Your task to perform on an android device: Open internet settings Image 0: 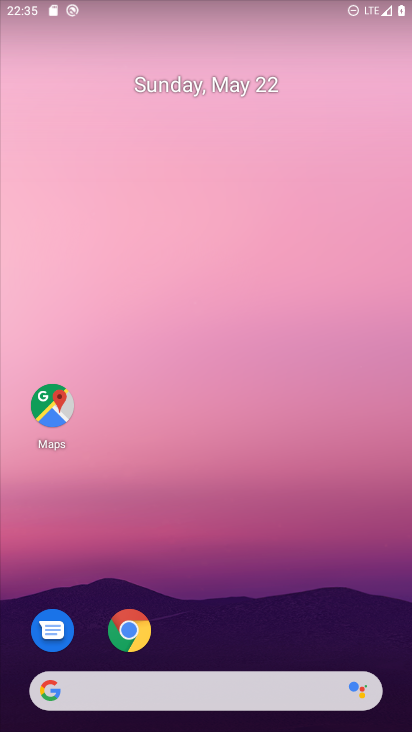
Step 0: drag from (130, 695) to (278, 97)
Your task to perform on an android device: Open internet settings Image 1: 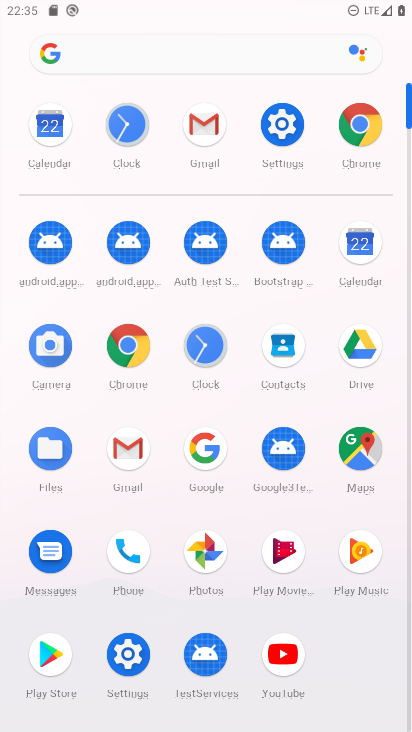
Step 1: click (280, 125)
Your task to perform on an android device: Open internet settings Image 2: 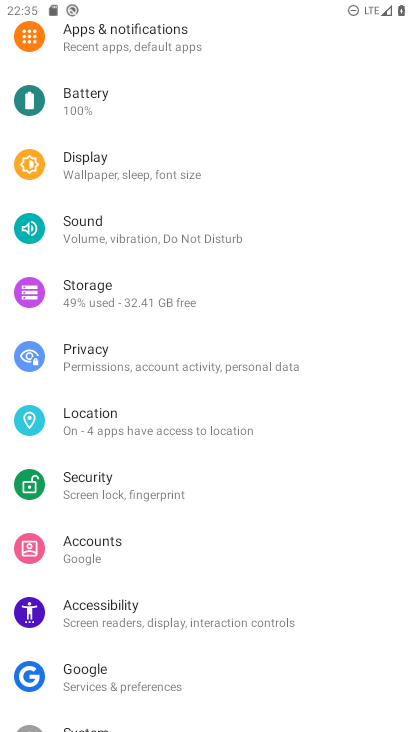
Step 2: drag from (197, 76) to (141, 569)
Your task to perform on an android device: Open internet settings Image 3: 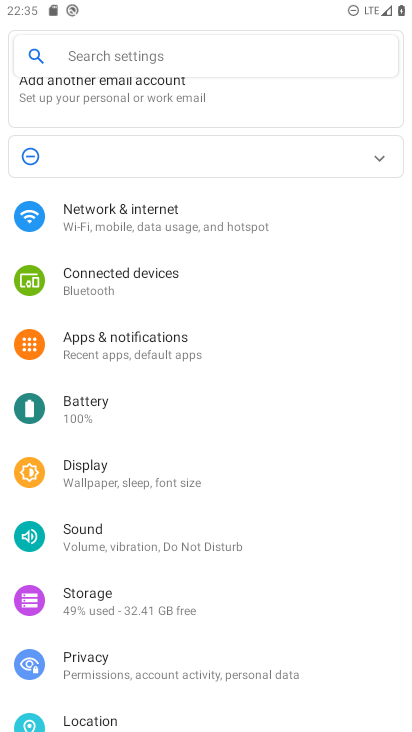
Step 3: click (167, 221)
Your task to perform on an android device: Open internet settings Image 4: 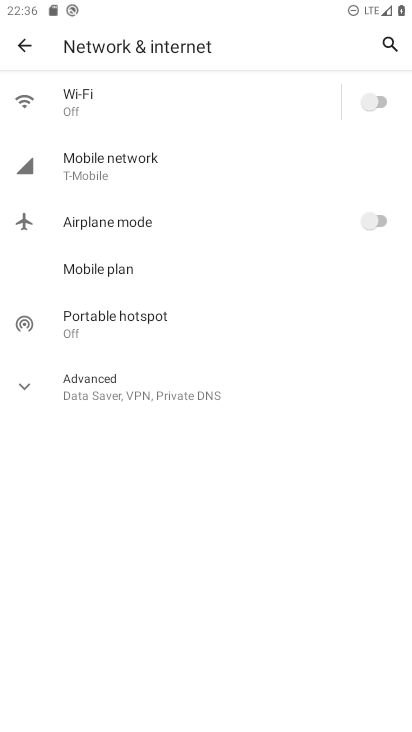
Step 4: task complete